Your task to perform on an android device: check android version Image 0: 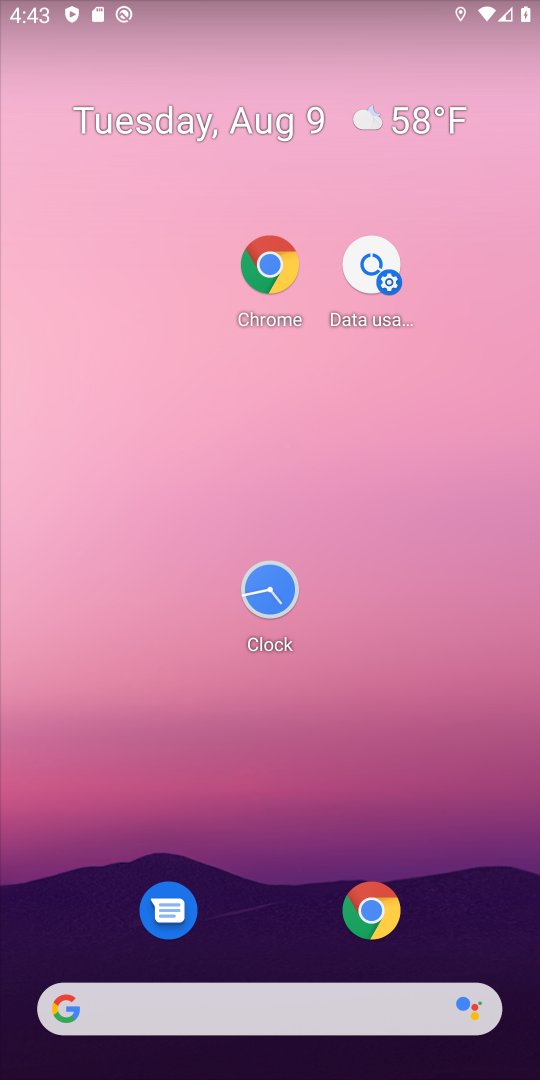
Step 0: drag from (306, 422) to (193, 3)
Your task to perform on an android device: check android version Image 1: 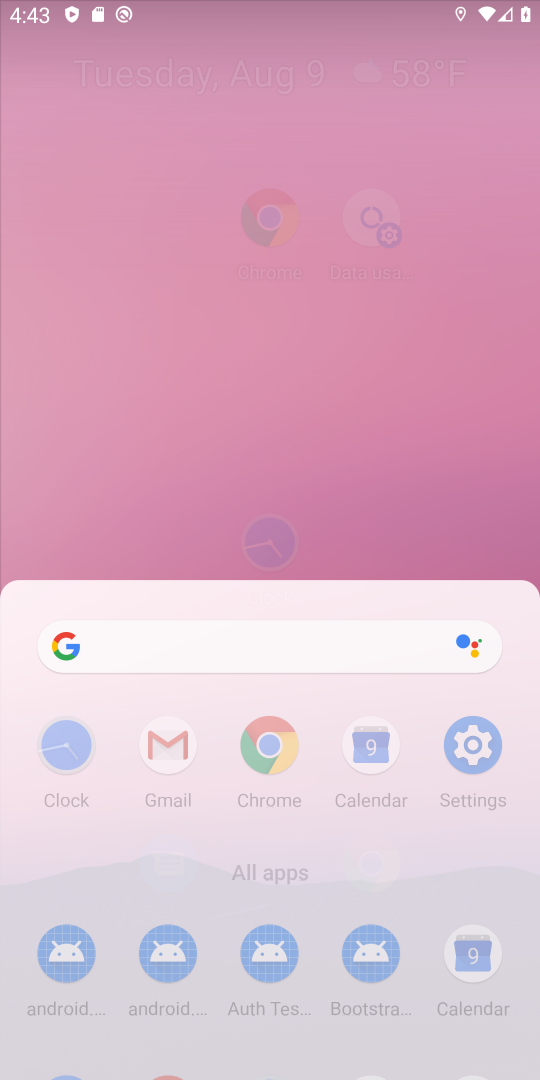
Step 1: drag from (287, 479) to (271, 2)
Your task to perform on an android device: check android version Image 2: 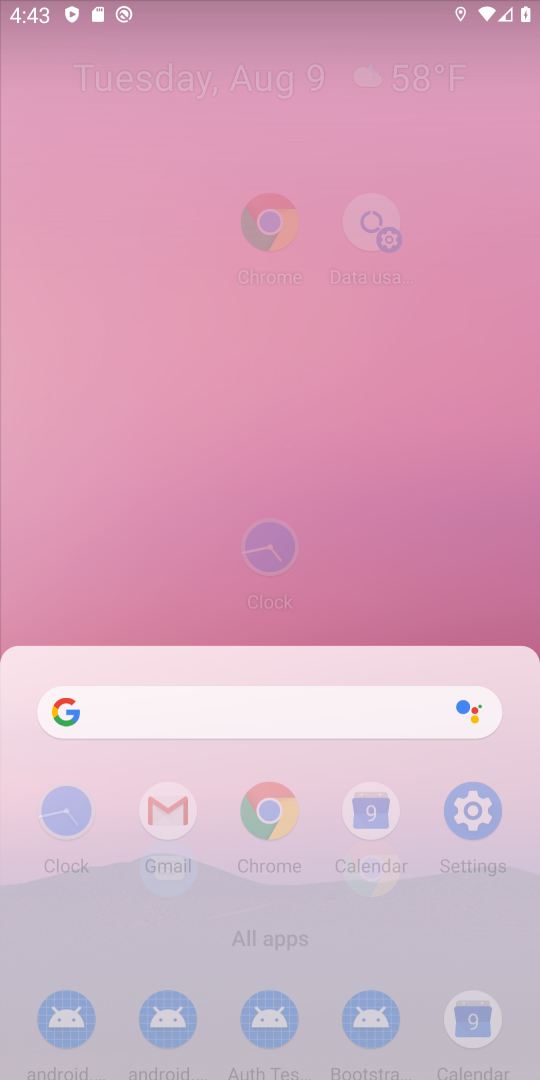
Step 2: drag from (232, 15) to (302, 78)
Your task to perform on an android device: check android version Image 3: 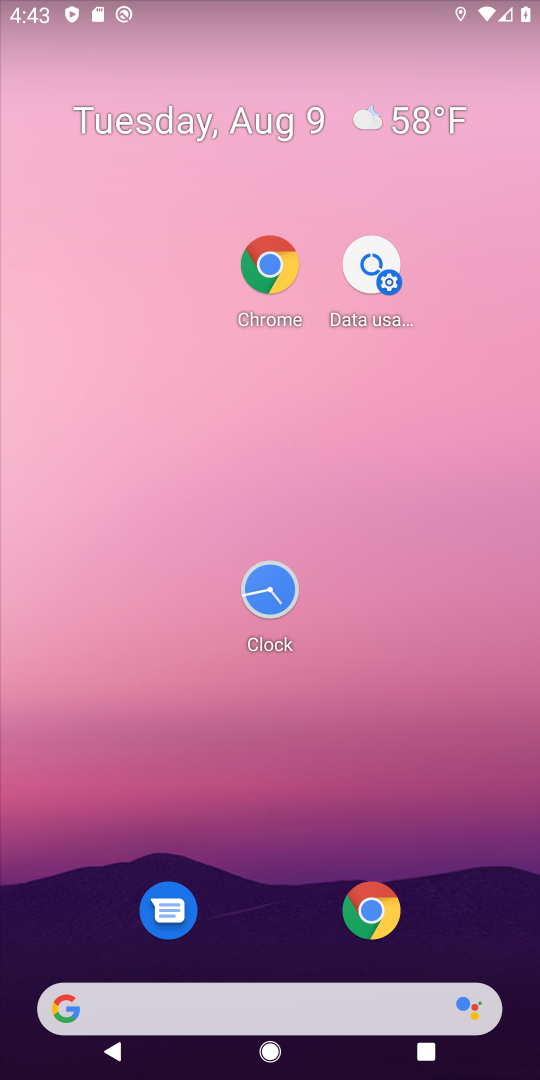
Step 3: drag from (282, 362) to (338, 66)
Your task to perform on an android device: check android version Image 4: 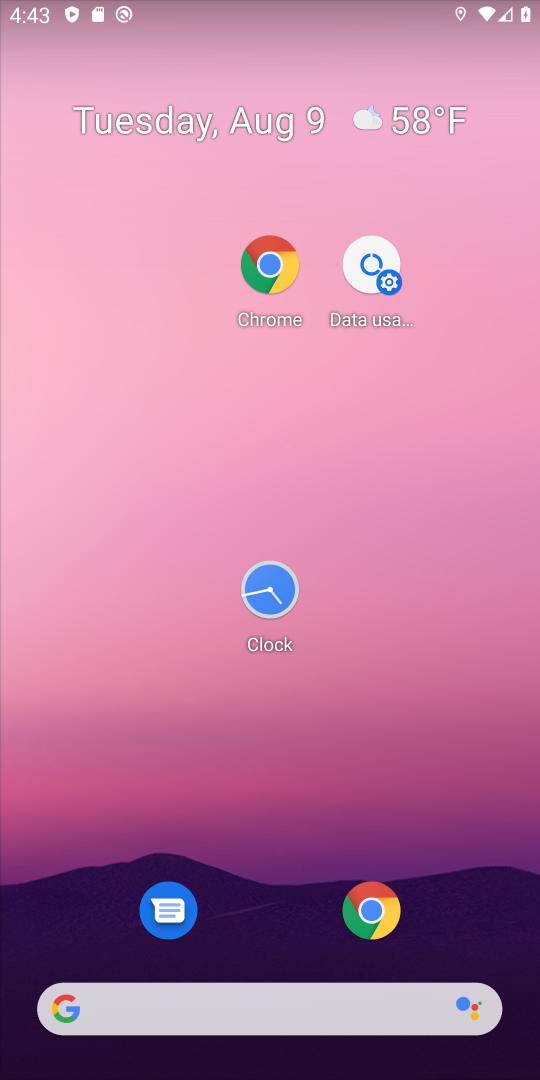
Step 4: drag from (379, 447) to (336, 133)
Your task to perform on an android device: check android version Image 5: 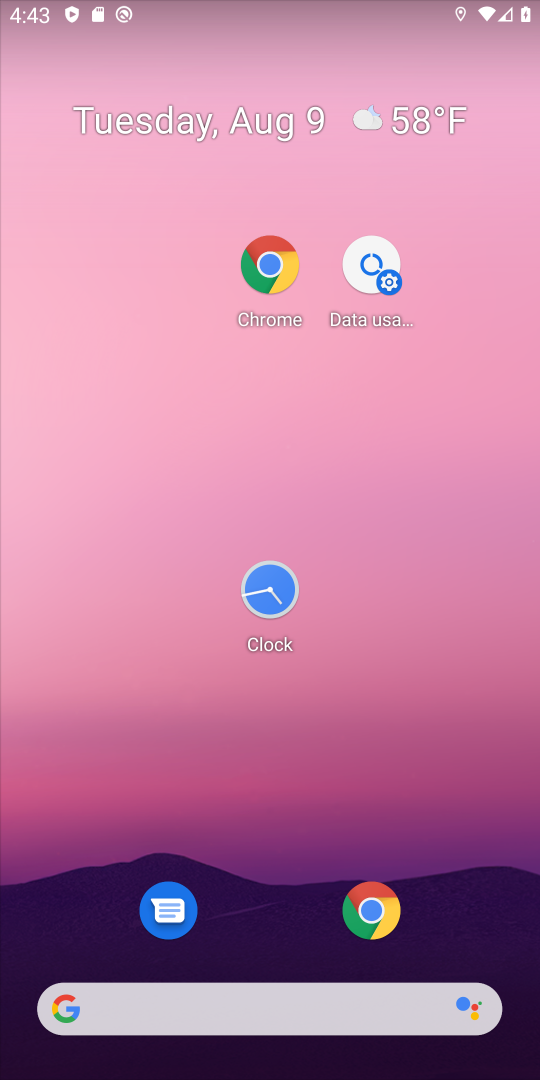
Step 5: drag from (340, 382) to (302, 44)
Your task to perform on an android device: check android version Image 6: 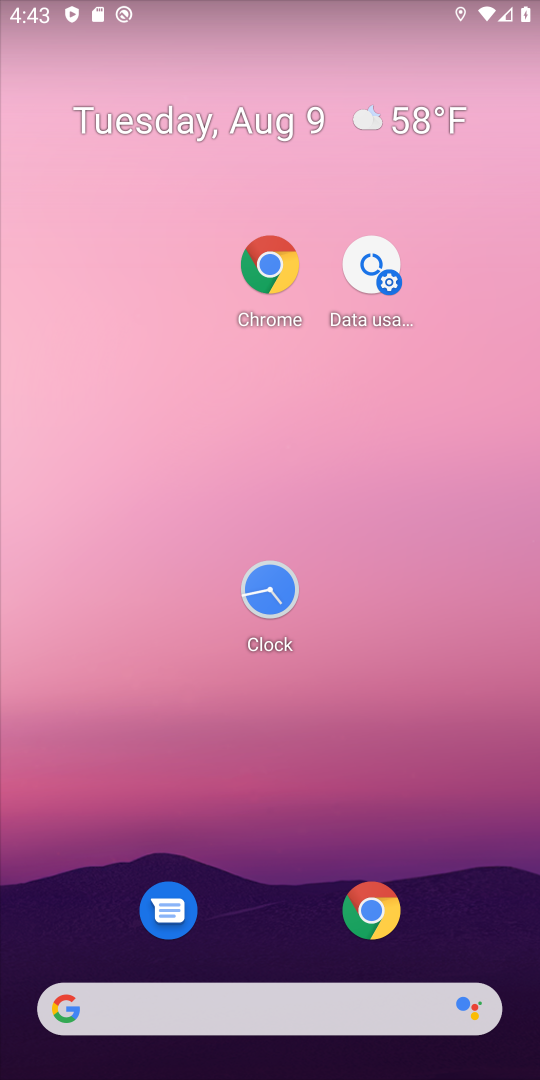
Step 6: drag from (372, 508) to (372, 85)
Your task to perform on an android device: check android version Image 7: 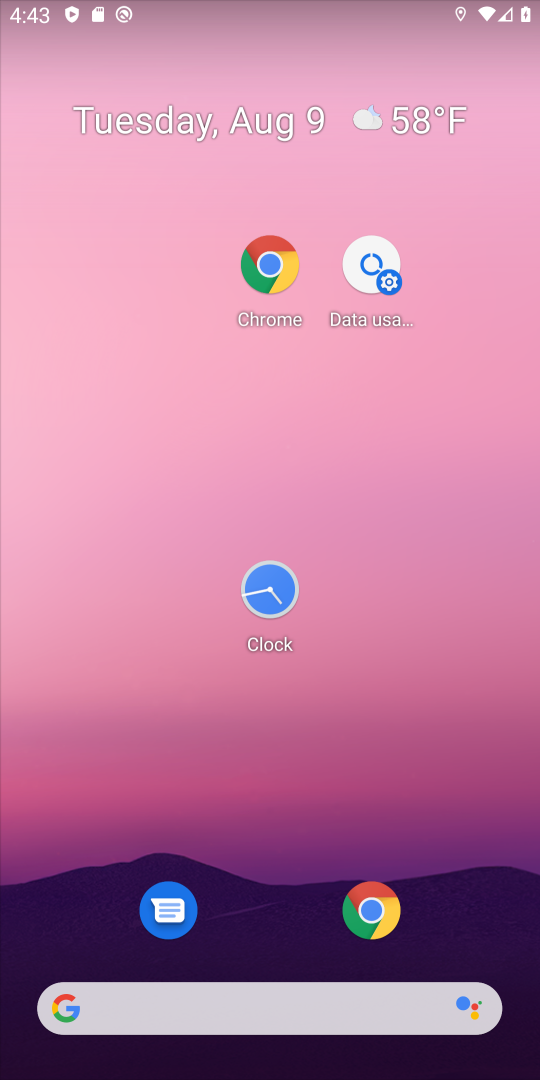
Step 7: drag from (338, 293) to (317, 42)
Your task to perform on an android device: check android version Image 8: 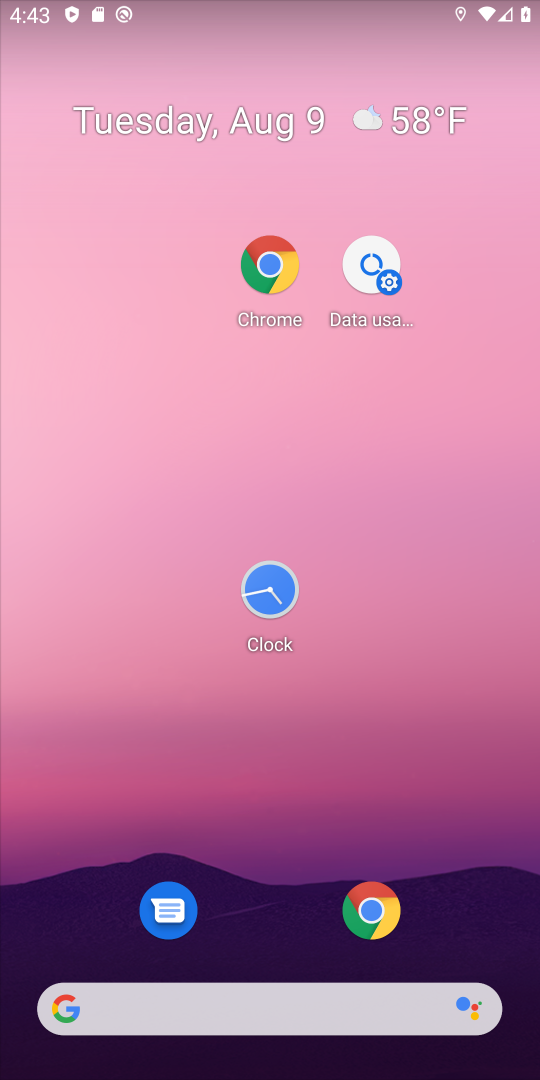
Step 8: drag from (371, 779) to (209, 16)
Your task to perform on an android device: check android version Image 9: 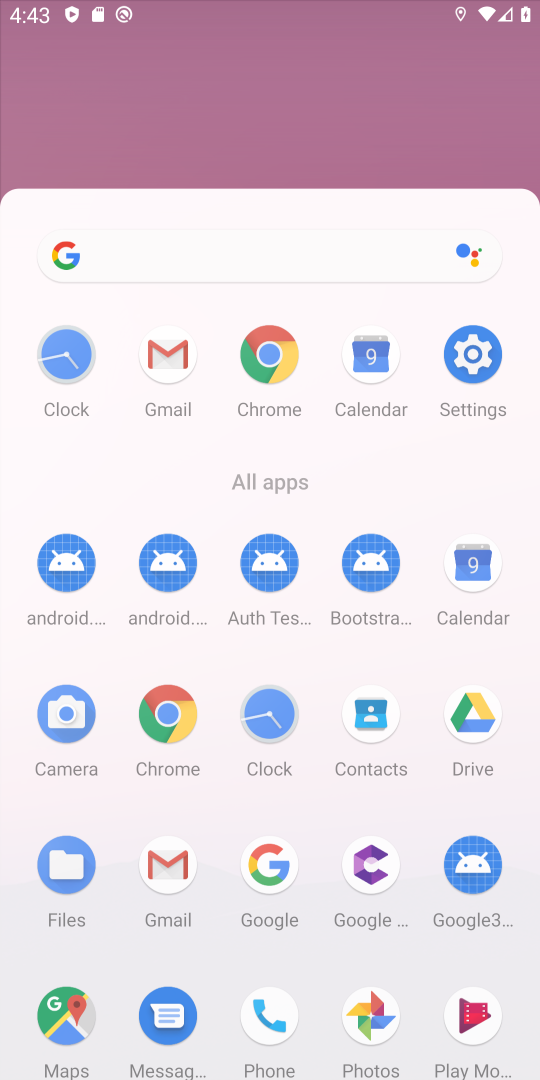
Step 9: drag from (311, 626) to (299, 73)
Your task to perform on an android device: check android version Image 10: 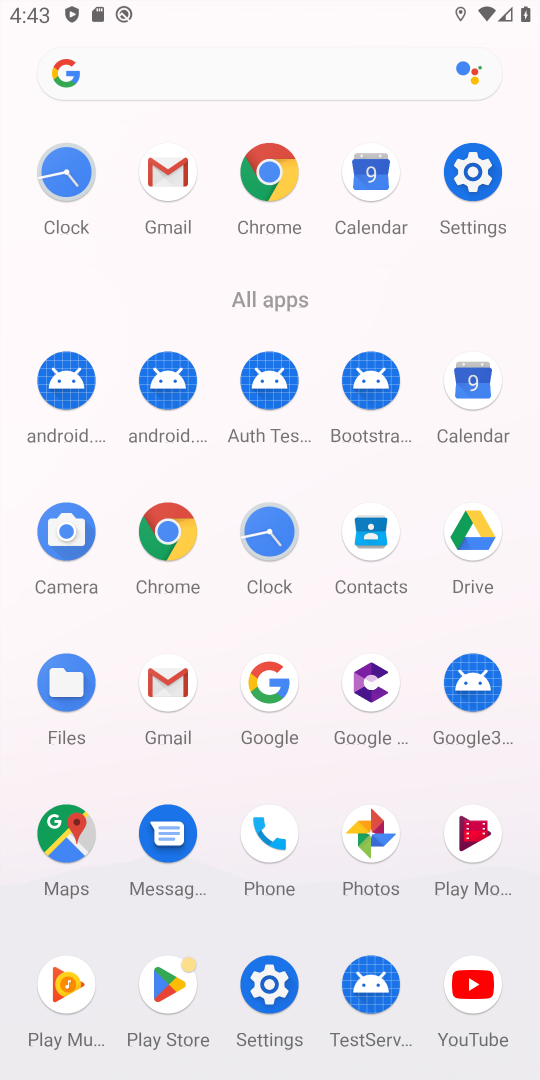
Step 10: click (467, 167)
Your task to perform on an android device: check android version Image 11: 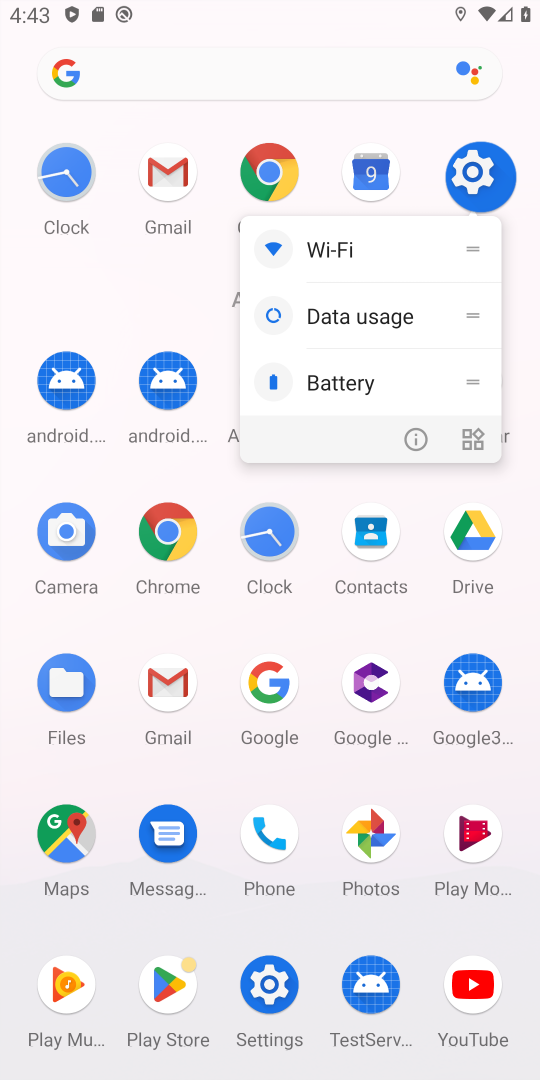
Step 11: click (483, 173)
Your task to perform on an android device: check android version Image 12: 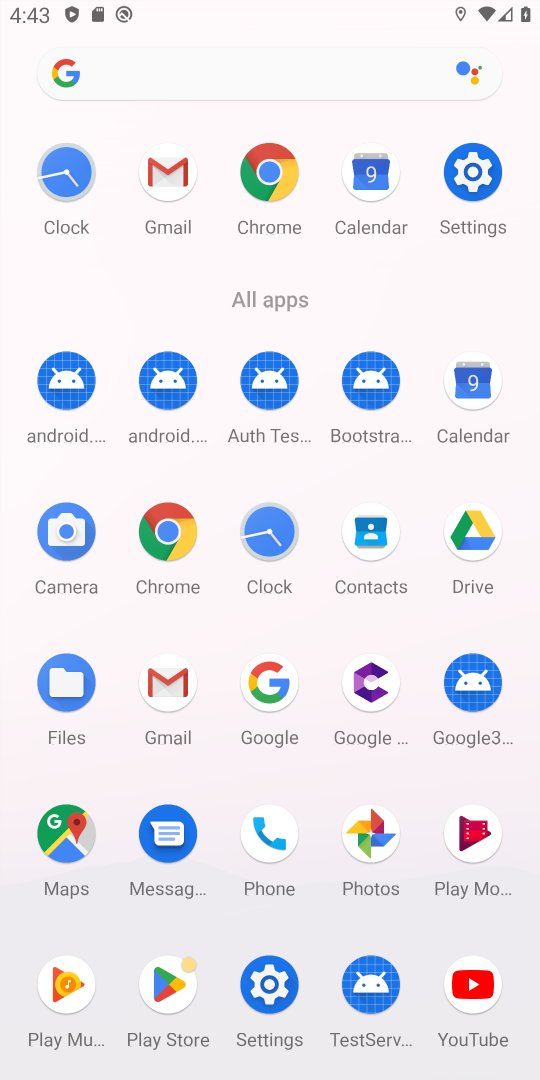
Step 12: click (446, 175)
Your task to perform on an android device: check android version Image 13: 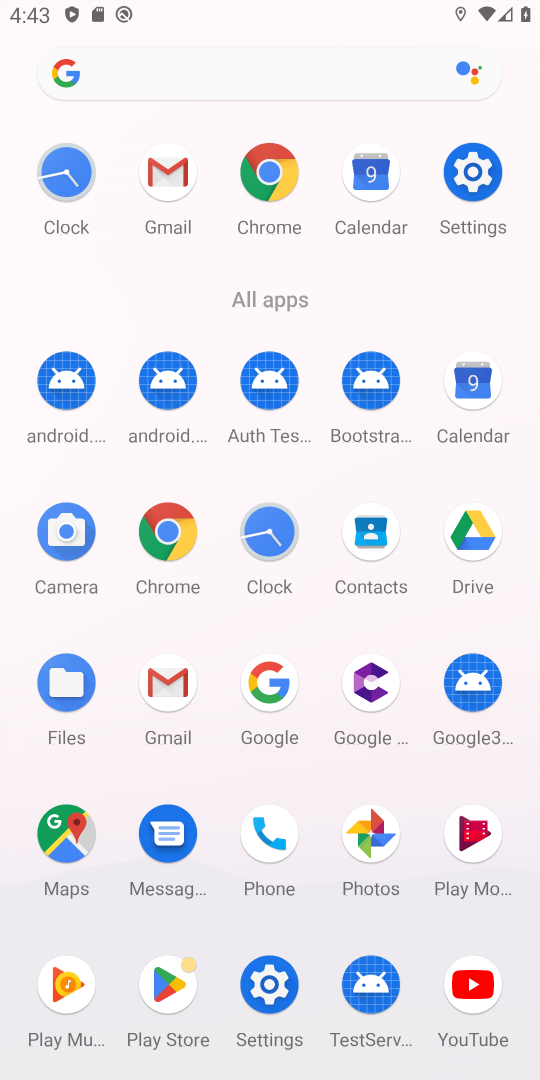
Step 13: click (446, 173)
Your task to perform on an android device: check android version Image 14: 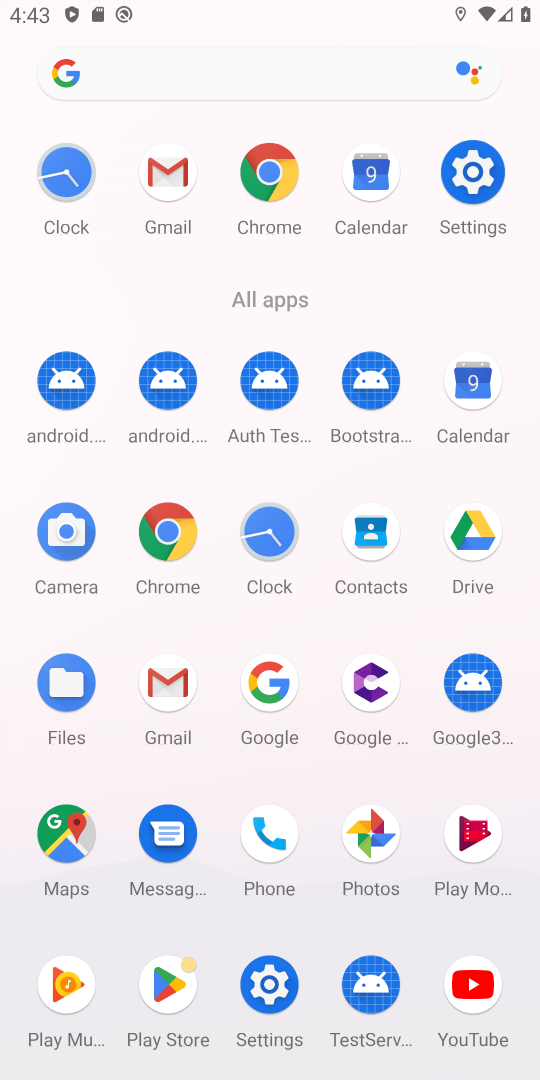
Step 14: click (457, 175)
Your task to perform on an android device: check android version Image 15: 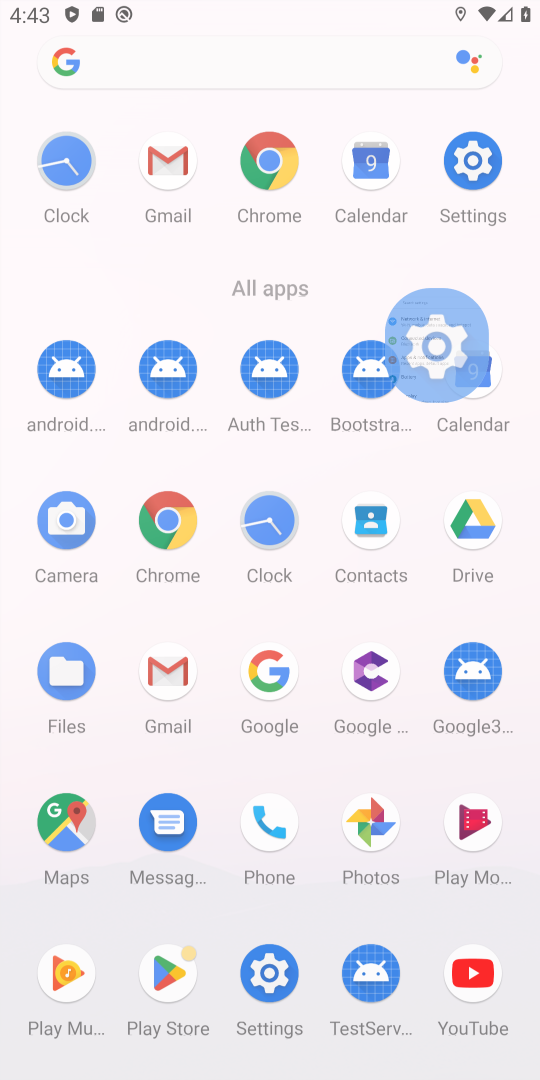
Step 15: click (457, 175)
Your task to perform on an android device: check android version Image 16: 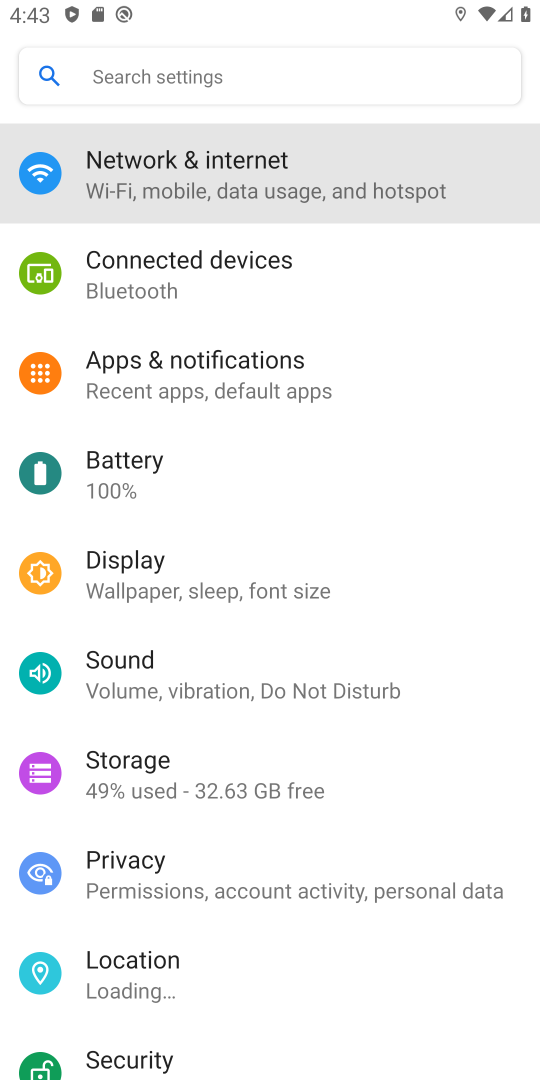
Step 16: click (467, 173)
Your task to perform on an android device: check android version Image 17: 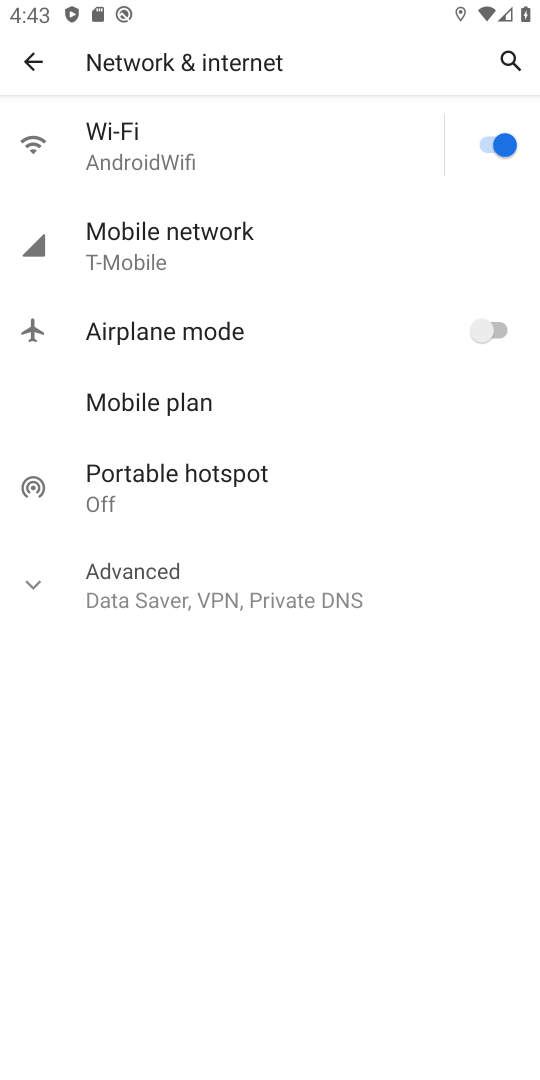
Step 17: drag from (205, 583) to (134, 175)
Your task to perform on an android device: check android version Image 18: 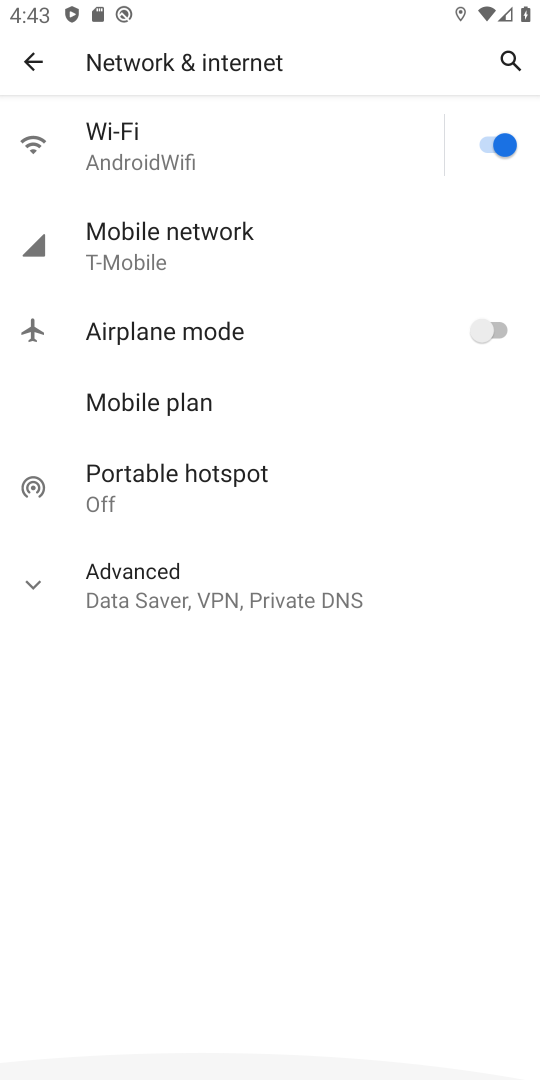
Step 18: click (157, 599)
Your task to perform on an android device: check android version Image 19: 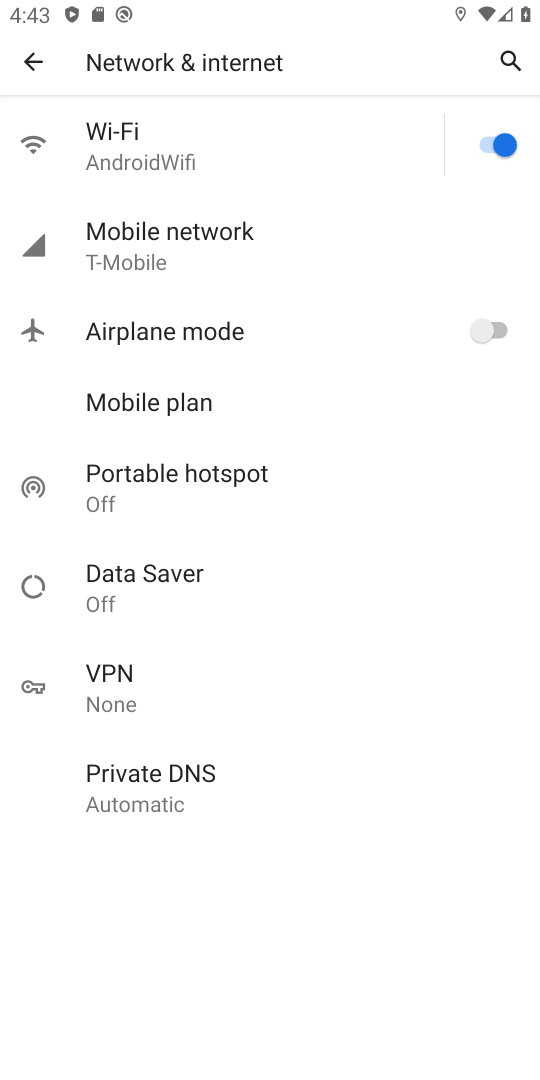
Step 19: click (38, 52)
Your task to perform on an android device: check android version Image 20: 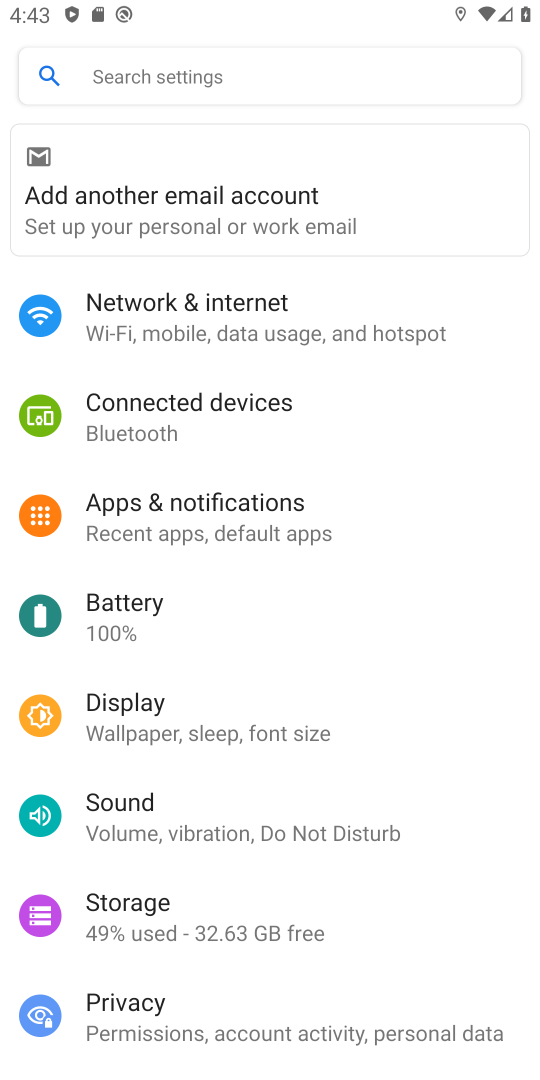
Step 20: drag from (213, 719) to (189, 341)
Your task to perform on an android device: check android version Image 21: 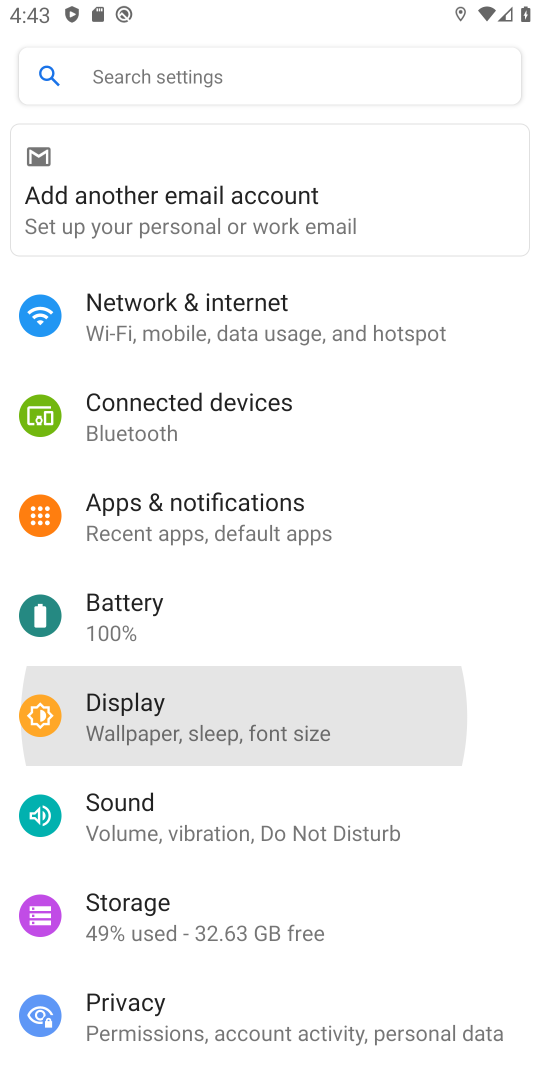
Step 21: drag from (296, 771) to (333, 230)
Your task to perform on an android device: check android version Image 22: 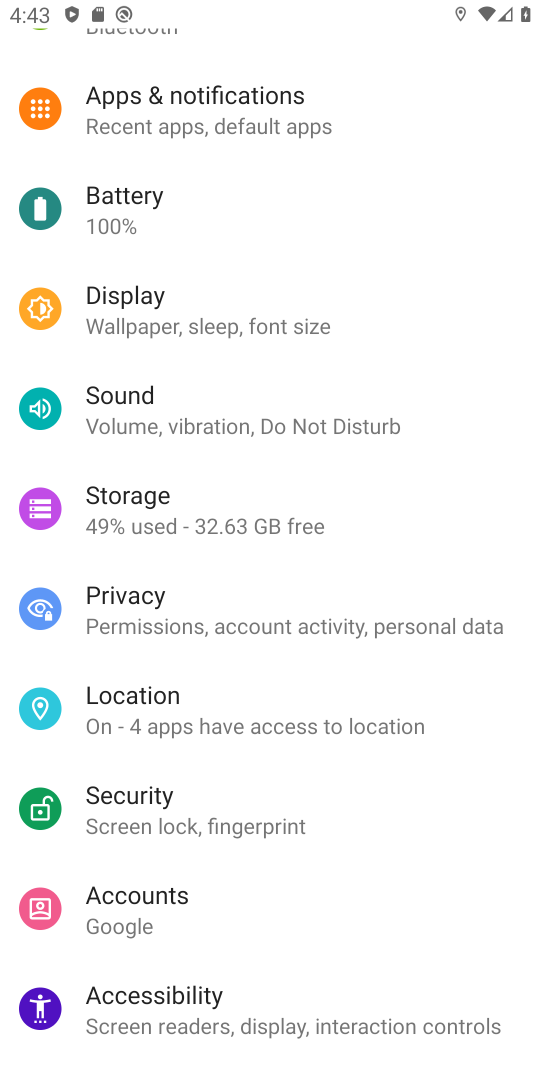
Step 22: drag from (318, 881) to (380, 423)
Your task to perform on an android device: check android version Image 23: 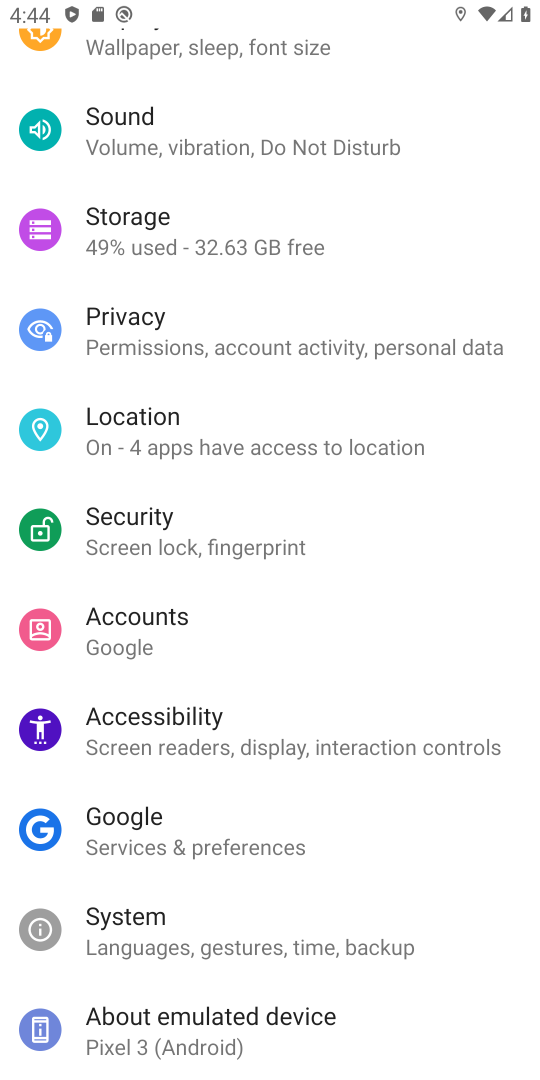
Step 23: click (192, 1022)
Your task to perform on an android device: check android version Image 24: 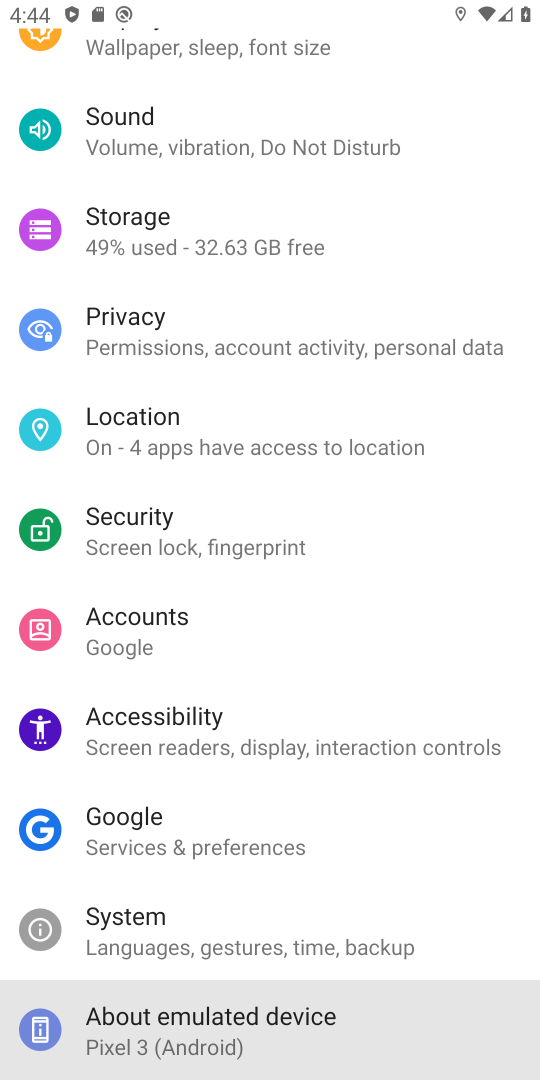
Step 24: click (201, 1019)
Your task to perform on an android device: check android version Image 25: 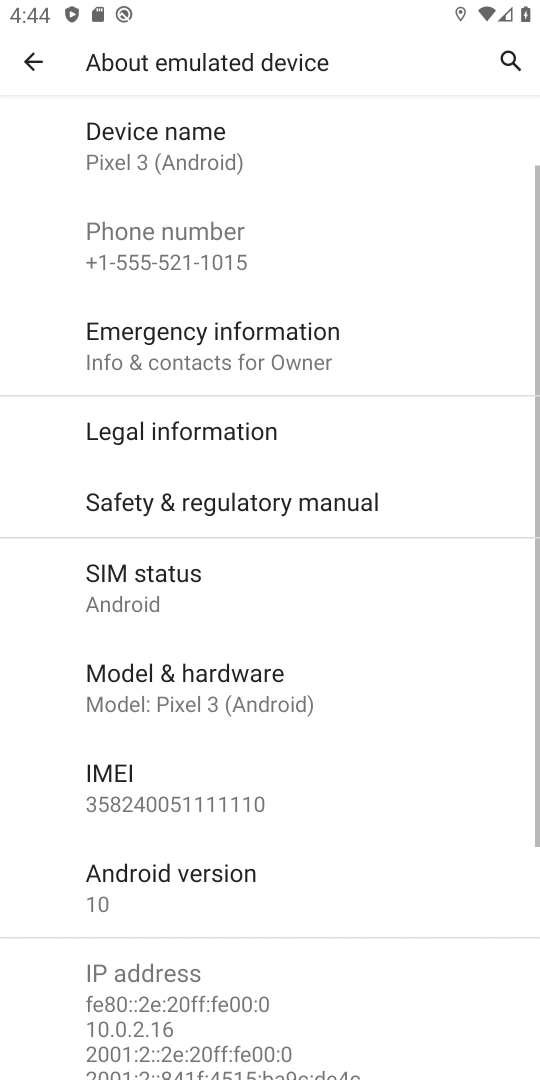
Step 25: drag from (249, 733) to (265, 160)
Your task to perform on an android device: check android version Image 26: 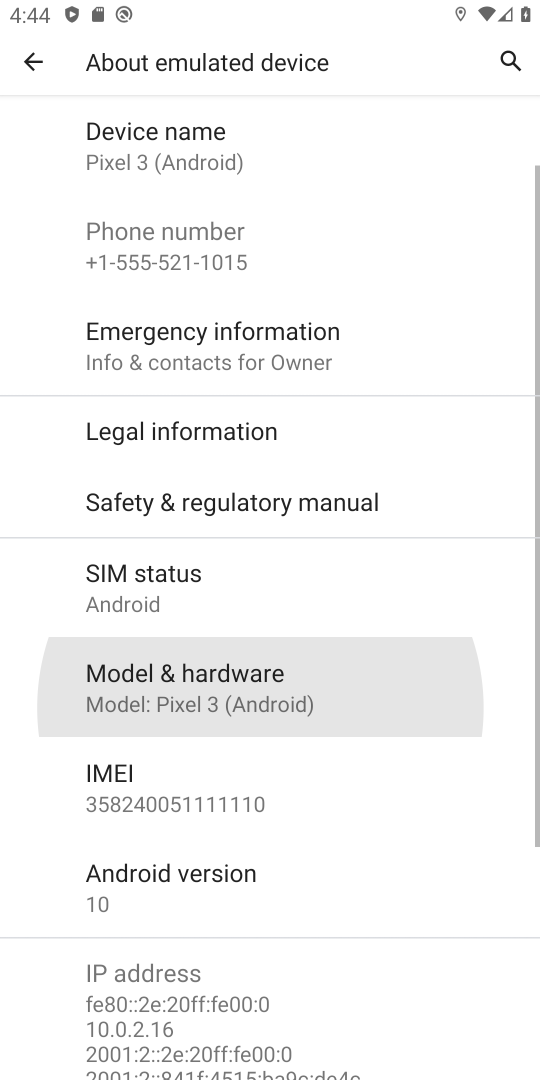
Step 26: drag from (275, 850) to (307, 66)
Your task to perform on an android device: check android version Image 27: 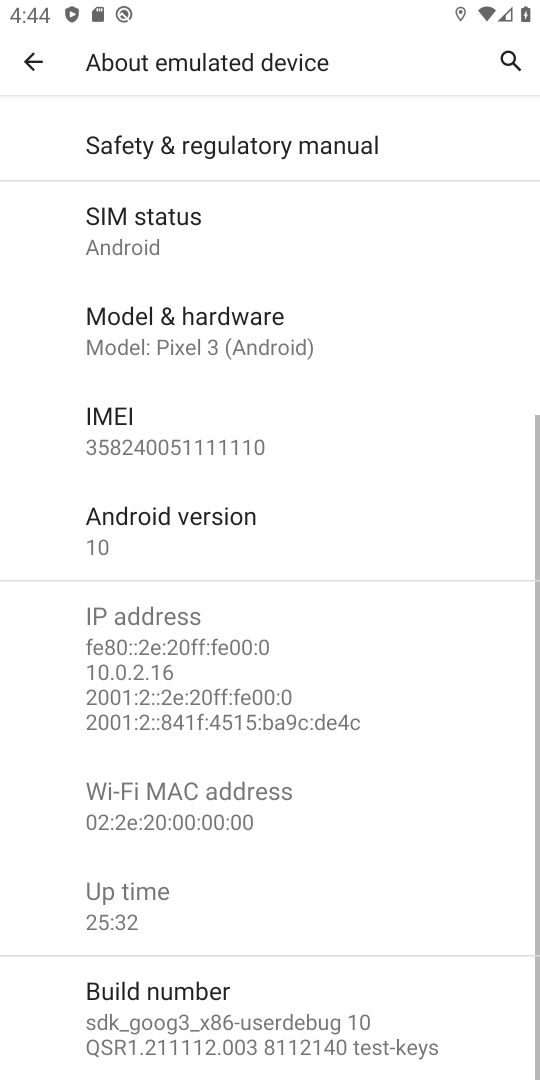
Step 27: click (184, 505)
Your task to perform on an android device: check android version Image 28: 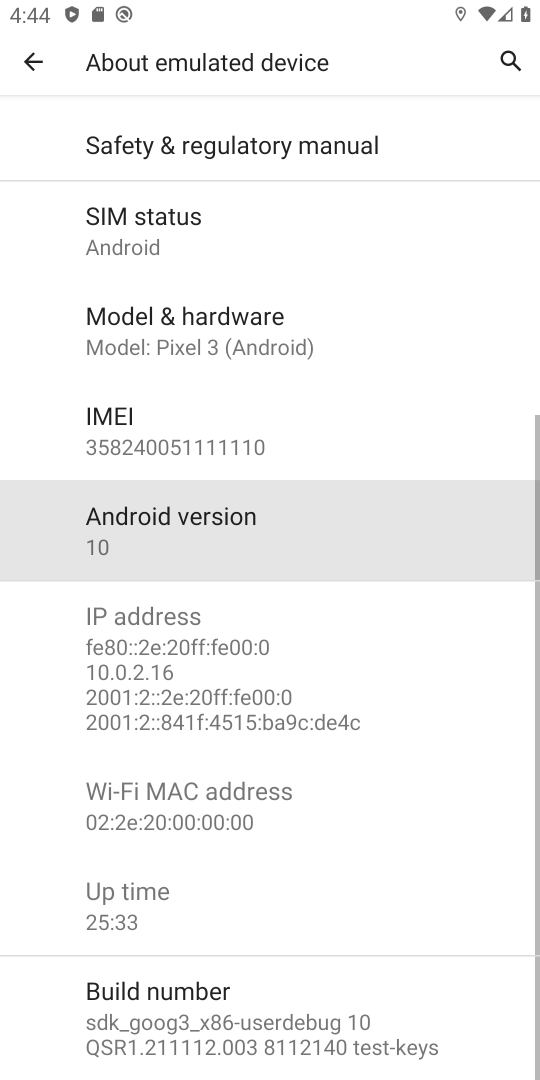
Step 28: task complete